Your task to perform on an android device: Open Youtube and go to "Your channel" Image 0: 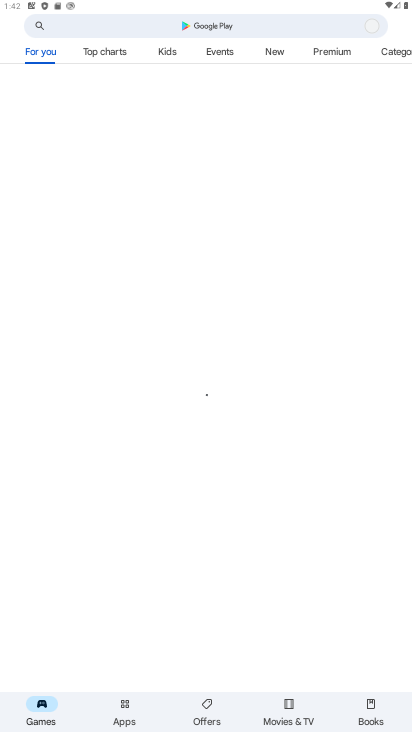
Step 0: press home button
Your task to perform on an android device: Open Youtube and go to "Your channel" Image 1: 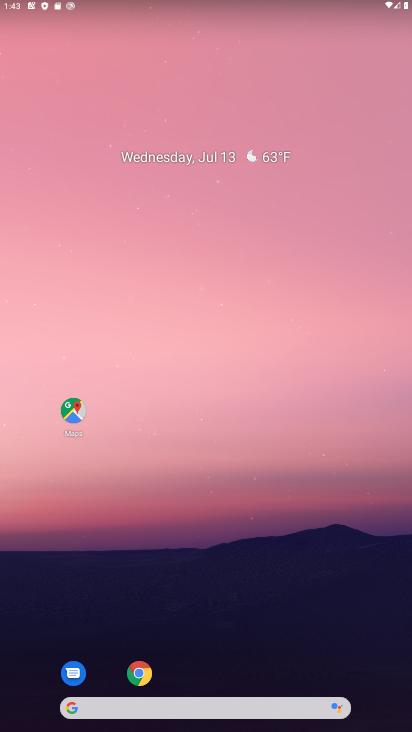
Step 1: drag from (189, 705) to (189, 347)
Your task to perform on an android device: Open Youtube and go to "Your channel" Image 2: 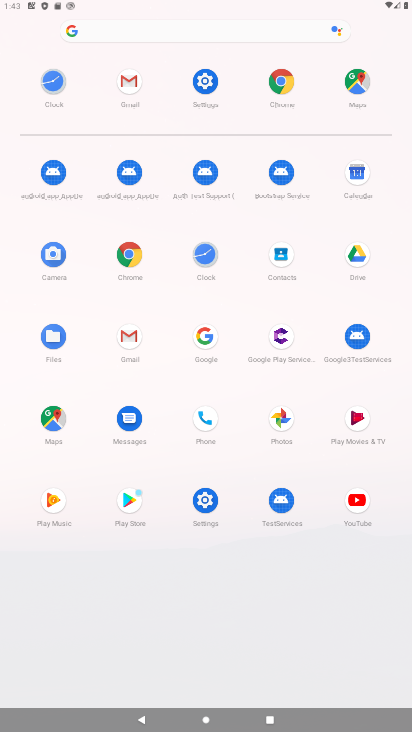
Step 2: click (350, 491)
Your task to perform on an android device: Open Youtube and go to "Your channel" Image 3: 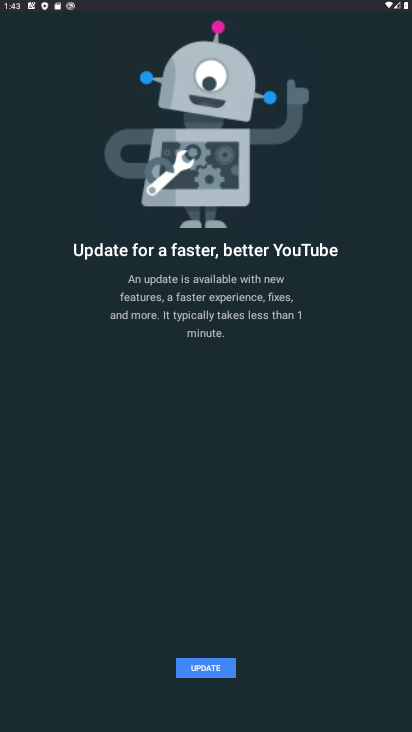
Step 3: task complete